Your task to perform on an android device: Go to location settings Image 0: 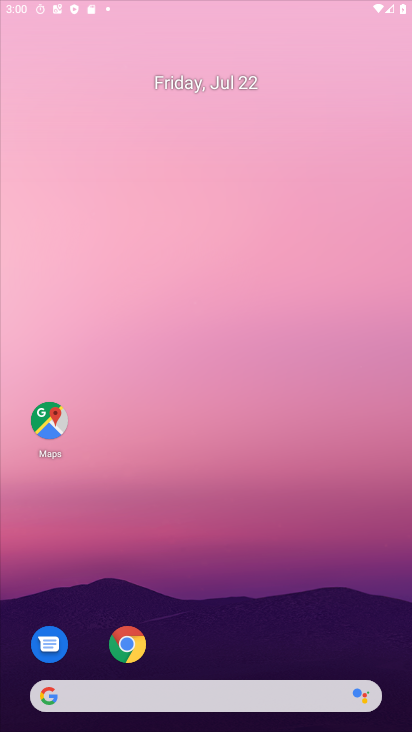
Step 0: press home button
Your task to perform on an android device: Go to location settings Image 1: 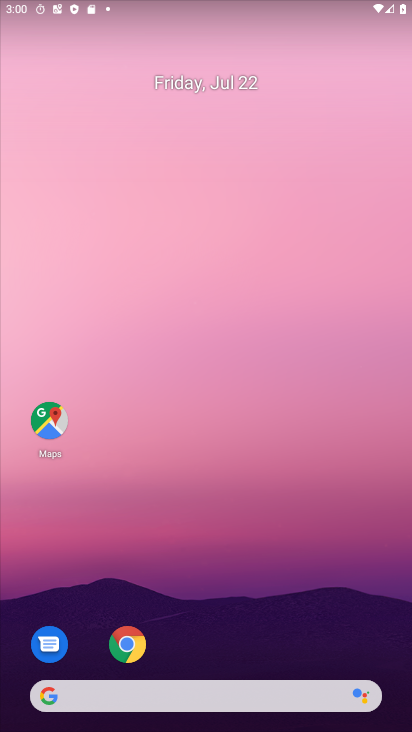
Step 1: drag from (240, 633) to (217, 140)
Your task to perform on an android device: Go to location settings Image 2: 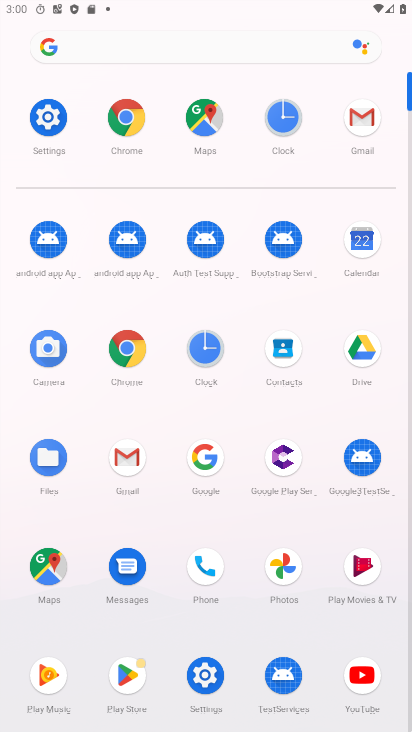
Step 2: click (42, 123)
Your task to perform on an android device: Go to location settings Image 3: 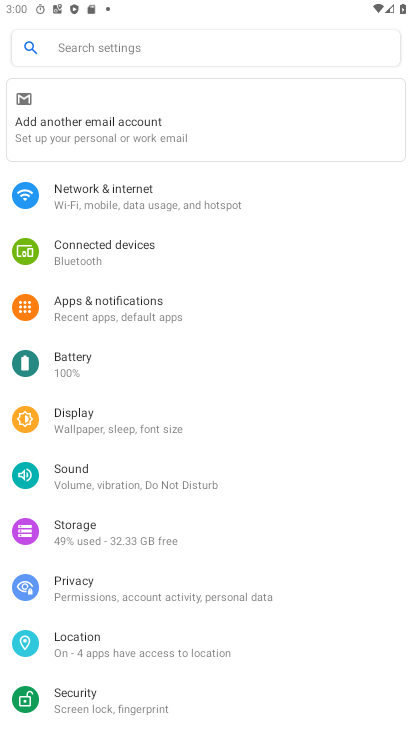
Step 3: click (70, 639)
Your task to perform on an android device: Go to location settings Image 4: 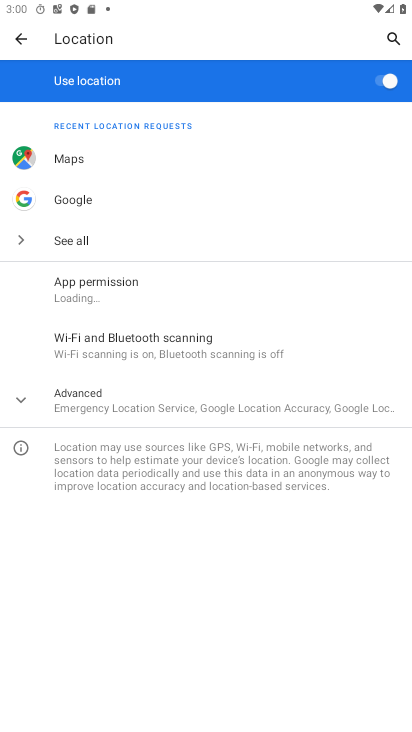
Step 4: task complete